Your task to perform on an android device: Turn on the flashlight Image 0: 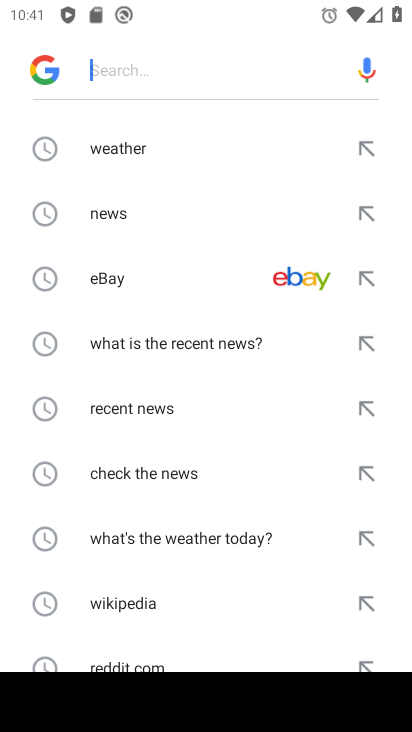
Step 0: press home button
Your task to perform on an android device: Turn on the flashlight Image 1: 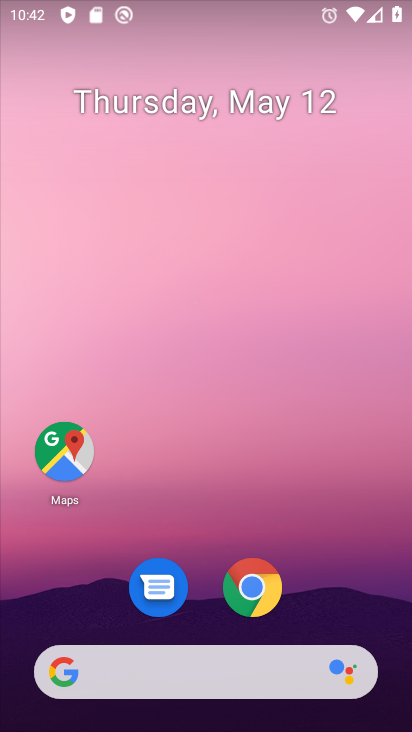
Step 1: drag from (333, 542) to (364, 77)
Your task to perform on an android device: Turn on the flashlight Image 2: 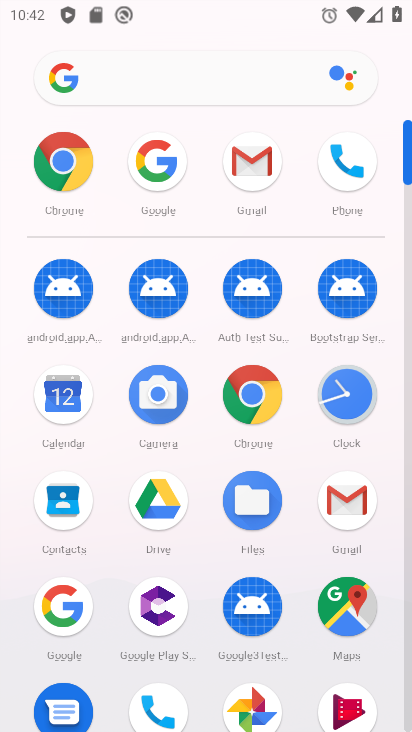
Step 2: drag from (401, 591) to (410, 333)
Your task to perform on an android device: Turn on the flashlight Image 3: 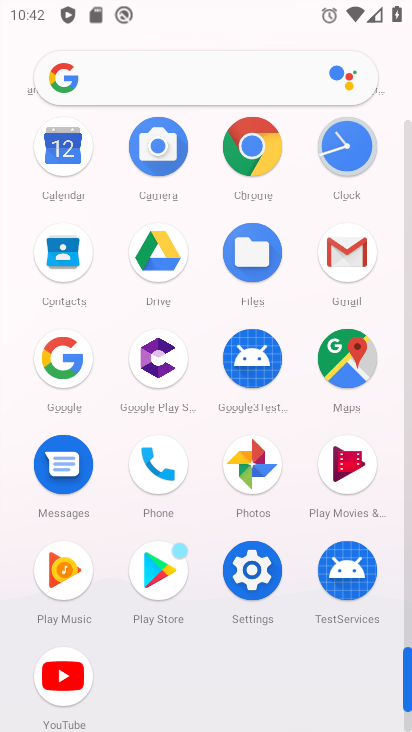
Step 3: click (265, 640)
Your task to perform on an android device: Turn on the flashlight Image 4: 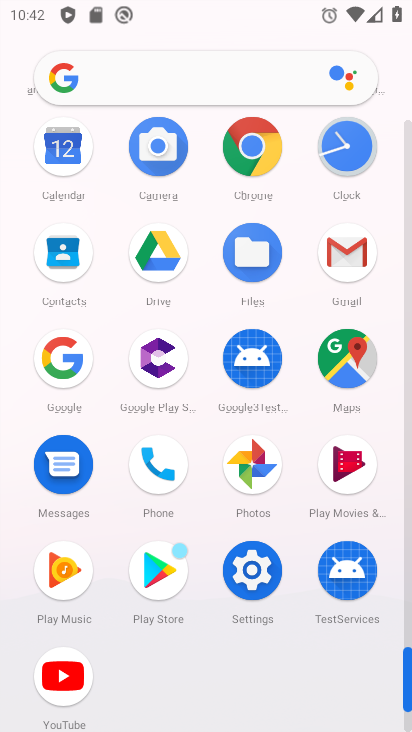
Step 4: click (270, 571)
Your task to perform on an android device: Turn on the flashlight Image 5: 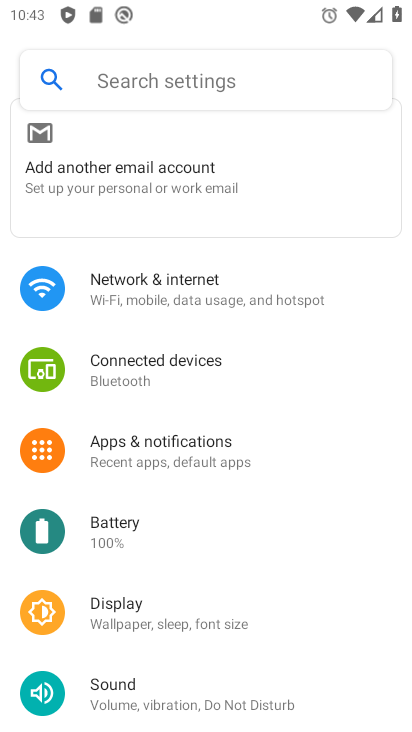
Step 5: task complete